Your task to perform on an android device: open a bookmark in the chrome app Image 0: 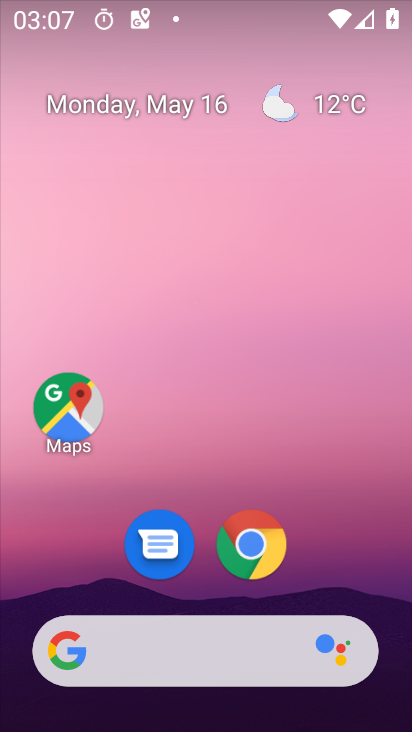
Step 0: click (245, 539)
Your task to perform on an android device: open a bookmark in the chrome app Image 1: 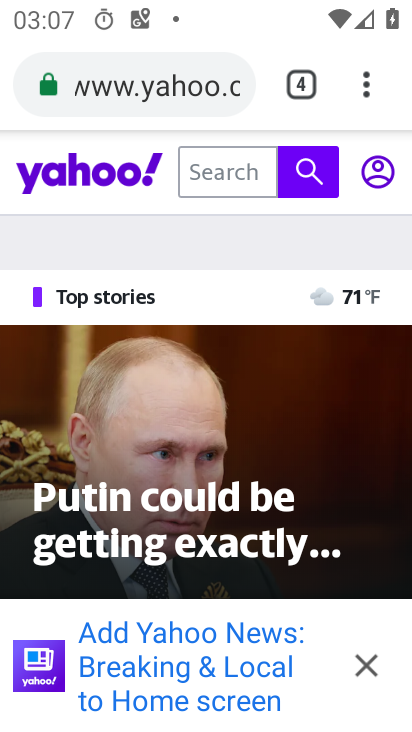
Step 1: click (364, 92)
Your task to perform on an android device: open a bookmark in the chrome app Image 2: 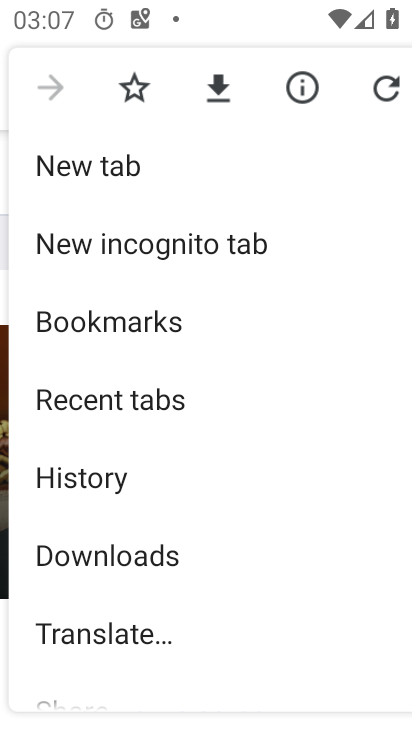
Step 2: click (92, 320)
Your task to perform on an android device: open a bookmark in the chrome app Image 3: 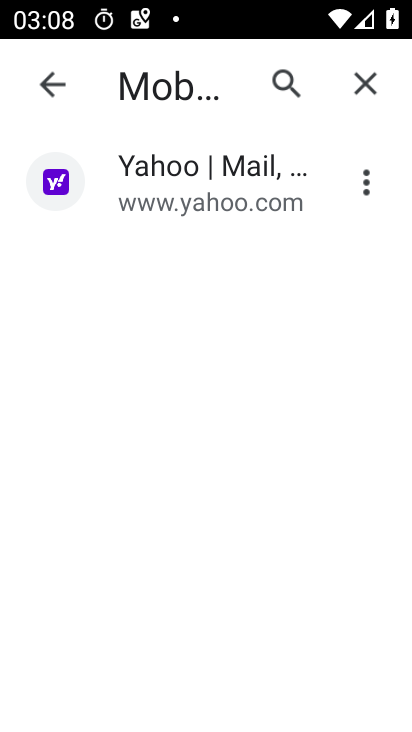
Step 3: click (190, 169)
Your task to perform on an android device: open a bookmark in the chrome app Image 4: 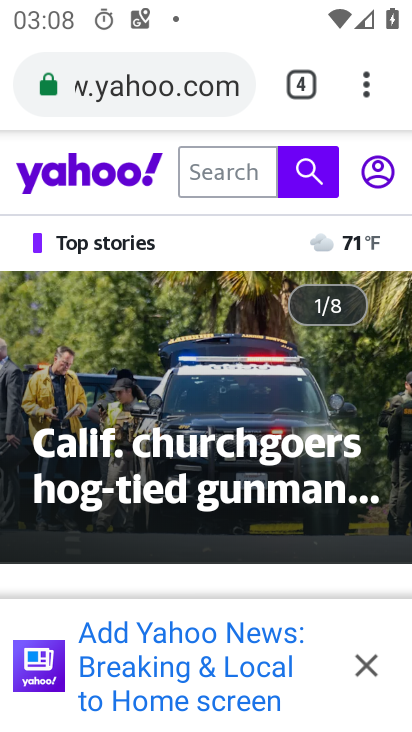
Step 4: task complete